Your task to perform on an android device: turn on javascript in the chrome app Image 0: 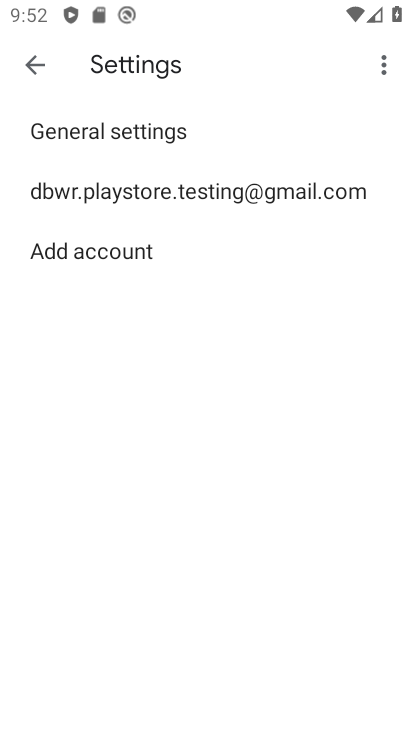
Step 0: press home button
Your task to perform on an android device: turn on javascript in the chrome app Image 1: 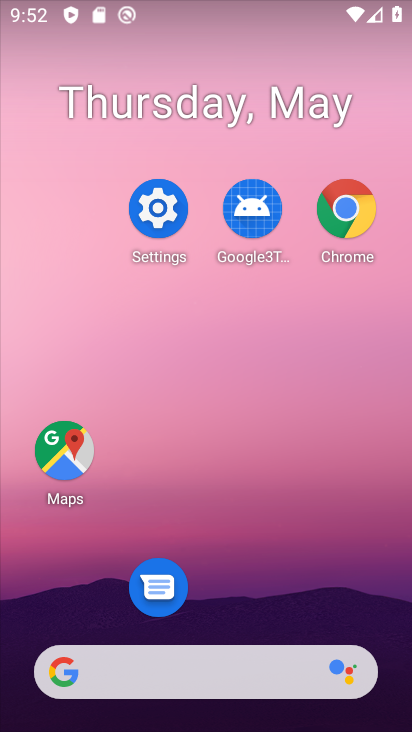
Step 1: click (348, 205)
Your task to perform on an android device: turn on javascript in the chrome app Image 2: 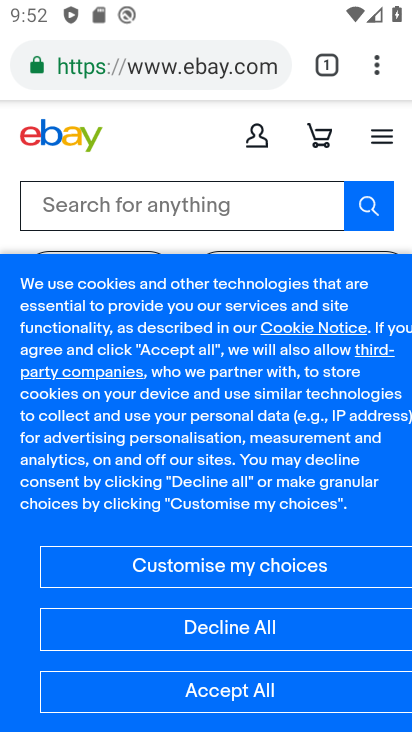
Step 2: click (372, 74)
Your task to perform on an android device: turn on javascript in the chrome app Image 3: 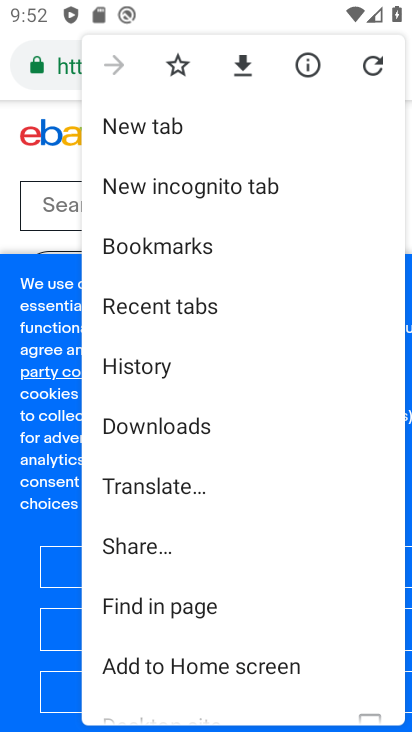
Step 3: click (179, 218)
Your task to perform on an android device: turn on javascript in the chrome app Image 4: 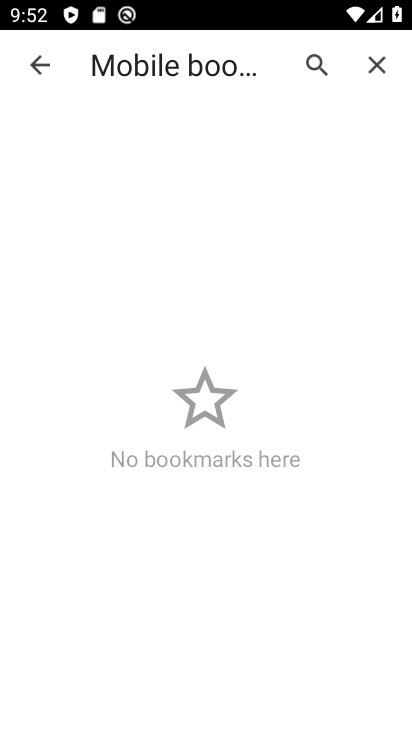
Step 4: click (372, 69)
Your task to perform on an android device: turn on javascript in the chrome app Image 5: 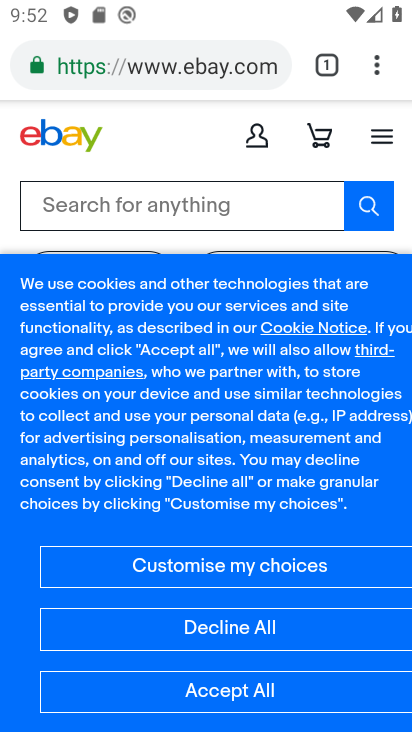
Step 5: click (380, 73)
Your task to perform on an android device: turn on javascript in the chrome app Image 6: 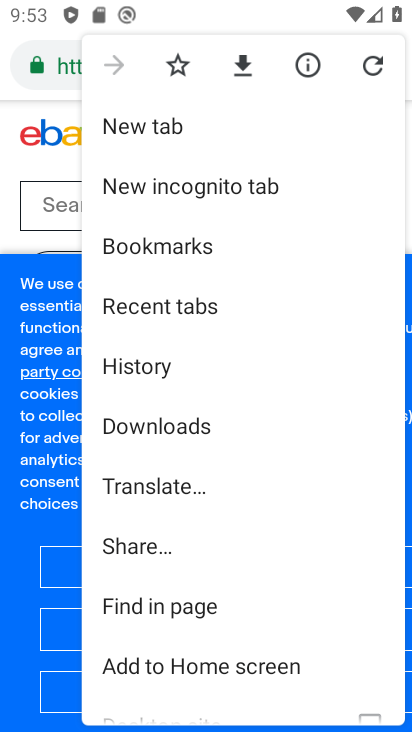
Step 6: drag from (194, 638) to (194, 393)
Your task to perform on an android device: turn on javascript in the chrome app Image 7: 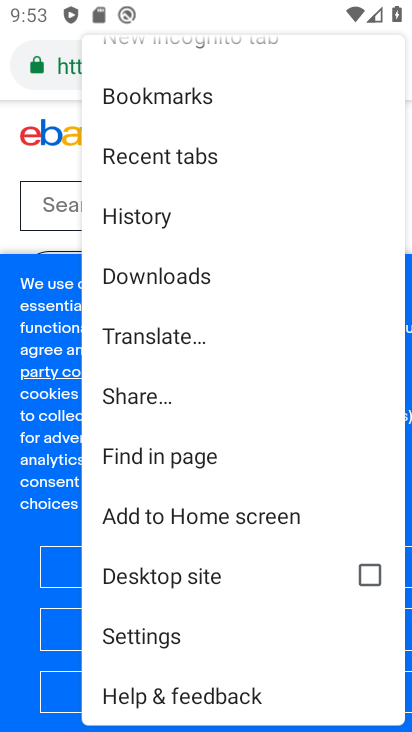
Step 7: click (160, 650)
Your task to perform on an android device: turn on javascript in the chrome app Image 8: 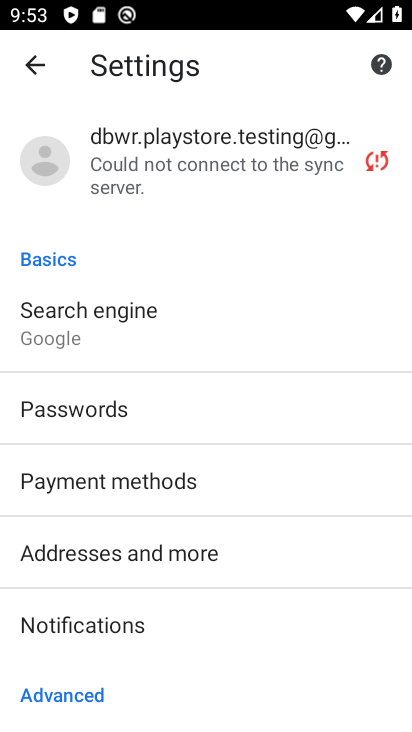
Step 8: drag from (159, 638) to (185, 242)
Your task to perform on an android device: turn on javascript in the chrome app Image 9: 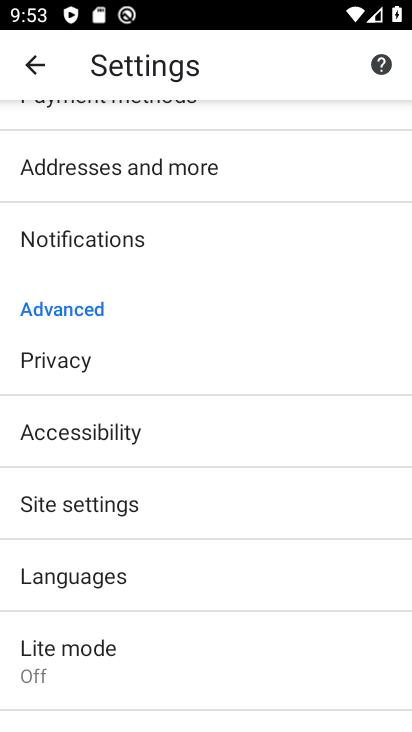
Step 9: click (68, 512)
Your task to perform on an android device: turn on javascript in the chrome app Image 10: 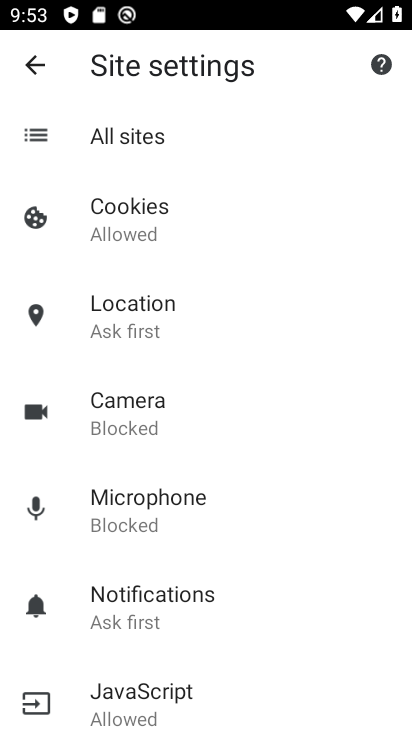
Step 10: click (135, 719)
Your task to perform on an android device: turn on javascript in the chrome app Image 11: 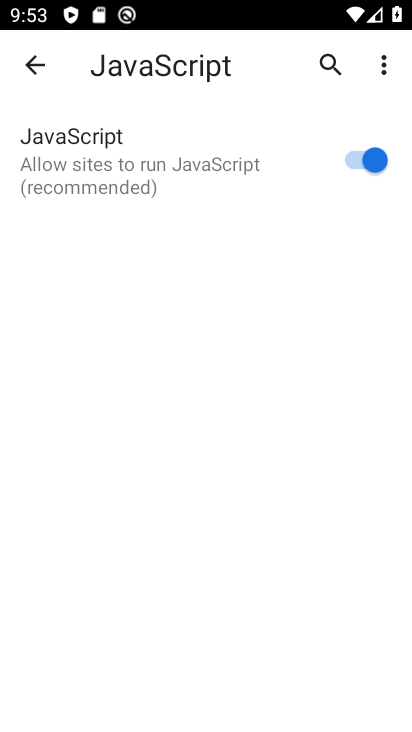
Step 11: task complete